Your task to perform on an android device: clear history in the chrome app Image 0: 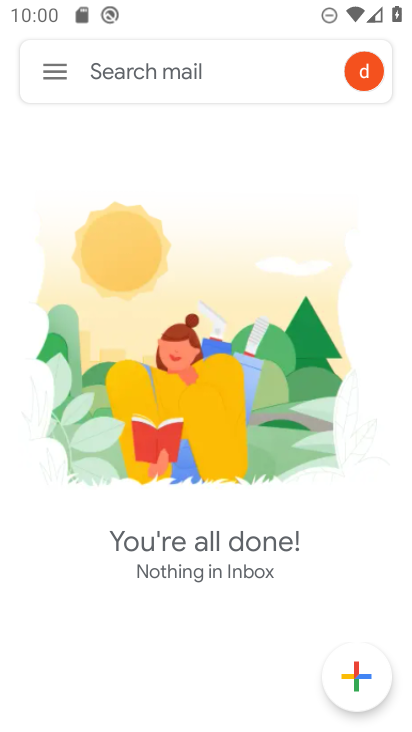
Step 0: press home button
Your task to perform on an android device: clear history in the chrome app Image 1: 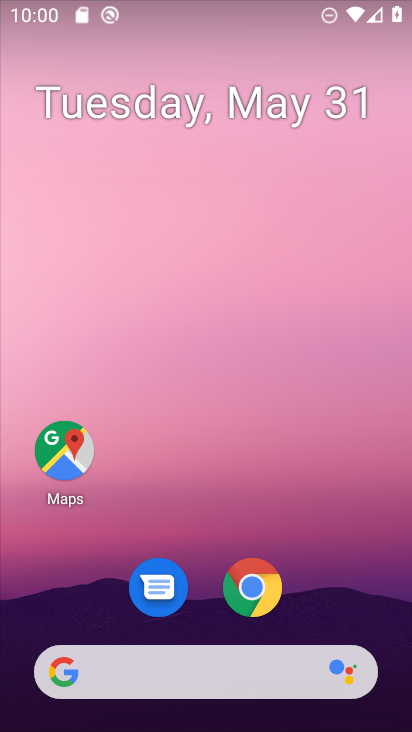
Step 1: click (250, 581)
Your task to perform on an android device: clear history in the chrome app Image 2: 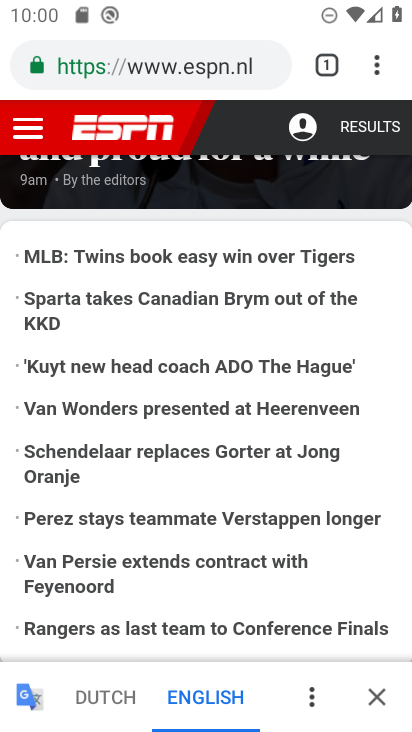
Step 2: click (380, 62)
Your task to perform on an android device: clear history in the chrome app Image 3: 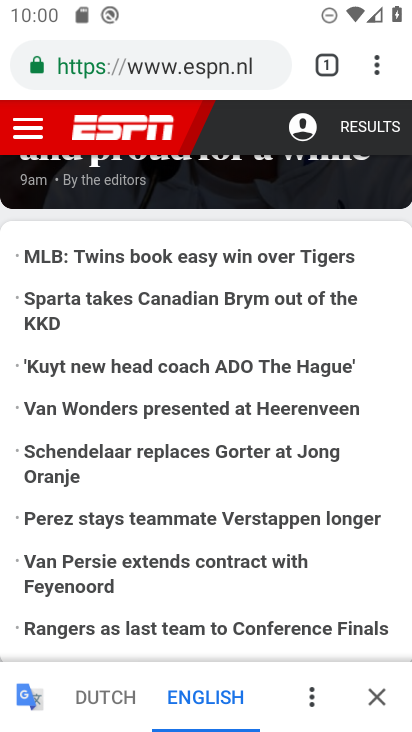
Step 3: click (374, 57)
Your task to perform on an android device: clear history in the chrome app Image 4: 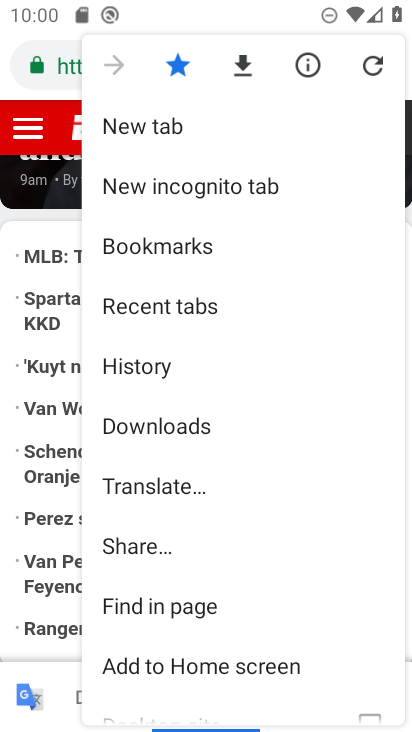
Step 4: click (180, 363)
Your task to perform on an android device: clear history in the chrome app Image 5: 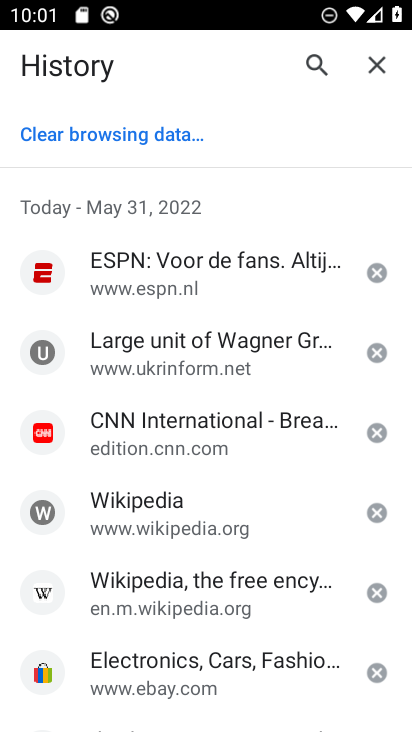
Step 5: click (84, 135)
Your task to perform on an android device: clear history in the chrome app Image 6: 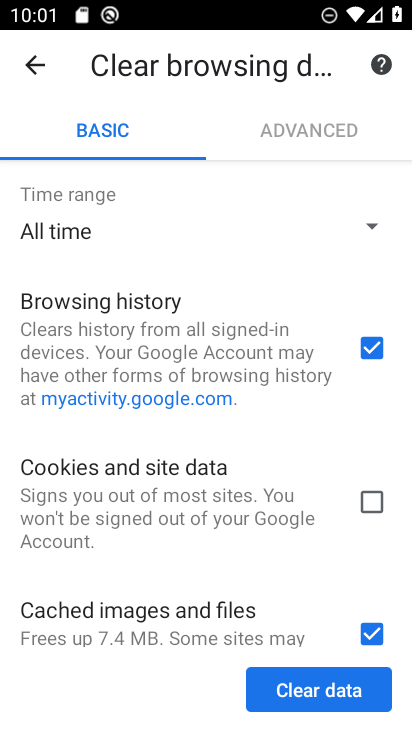
Step 6: click (372, 497)
Your task to perform on an android device: clear history in the chrome app Image 7: 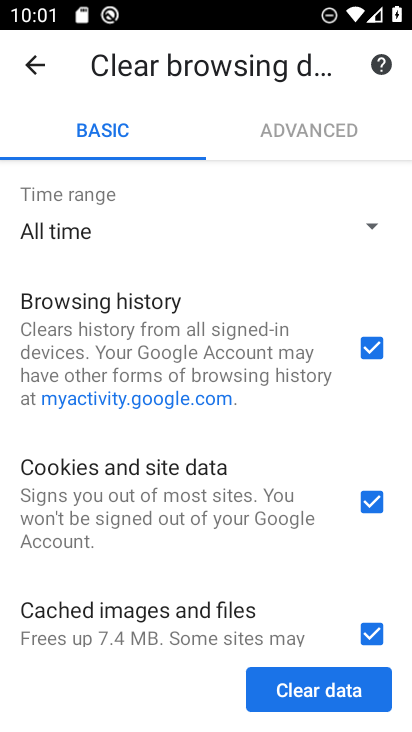
Step 7: click (326, 690)
Your task to perform on an android device: clear history in the chrome app Image 8: 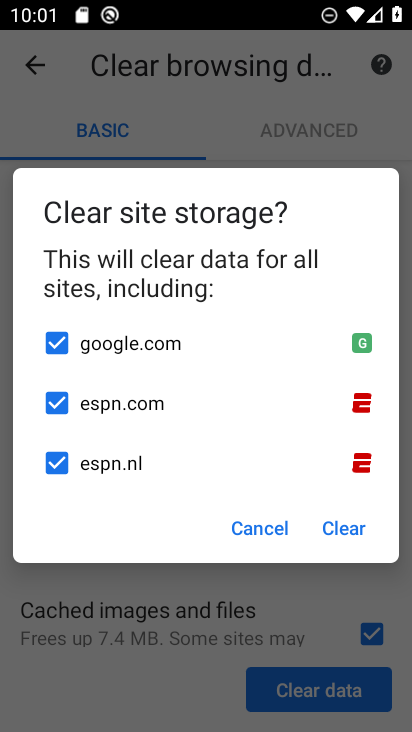
Step 8: click (334, 526)
Your task to perform on an android device: clear history in the chrome app Image 9: 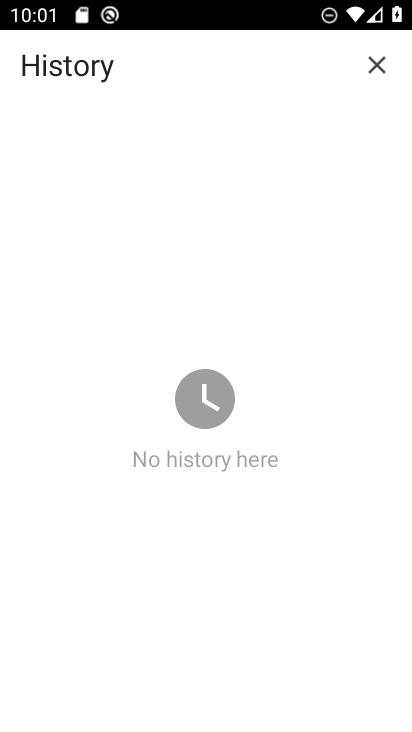
Step 9: task complete